Your task to perform on an android device: turn off location history Image 0: 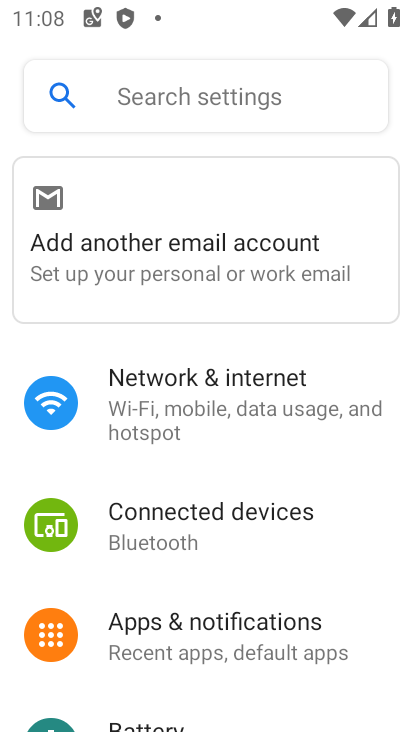
Step 0: press home button
Your task to perform on an android device: turn off location history Image 1: 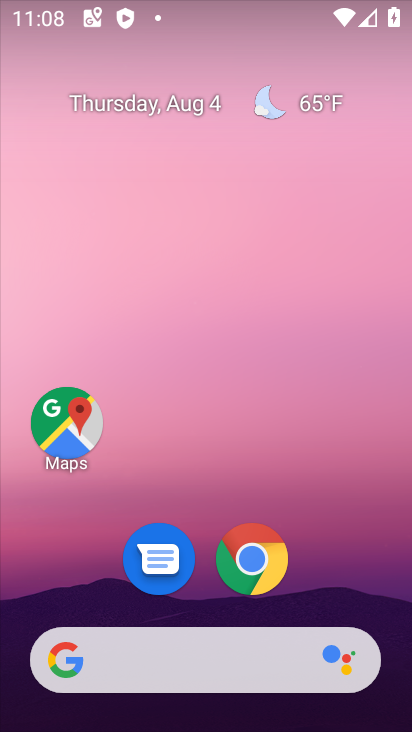
Step 1: drag from (398, 620) to (409, 235)
Your task to perform on an android device: turn off location history Image 2: 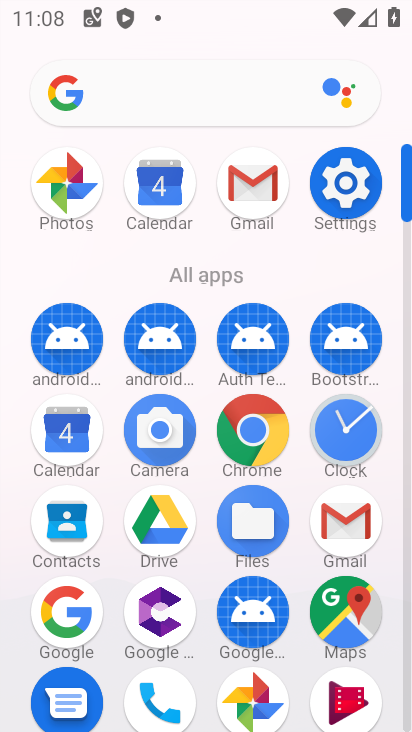
Step 2: click (354, 205)
Your task to perform on an android device: turn off location history Image 3: 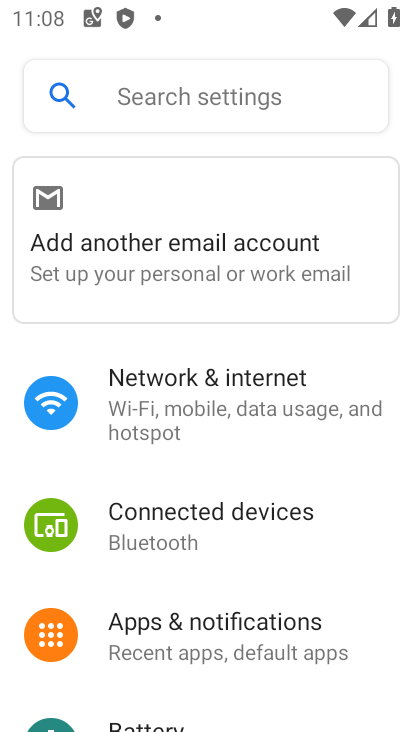
Step 3: drag from (337, 565) to (302, 337)
Your task to perform on an android device: turn off location history Image 4: 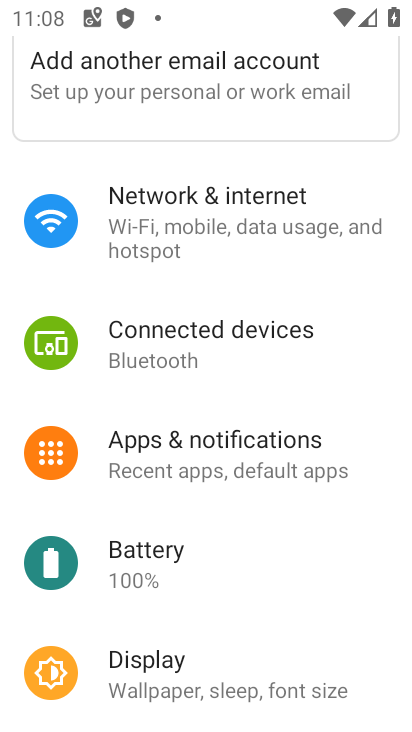
Step 4: drag from (336, 568) to (281, 198)
Your task to perform on an android device: turn off location history Image 5: 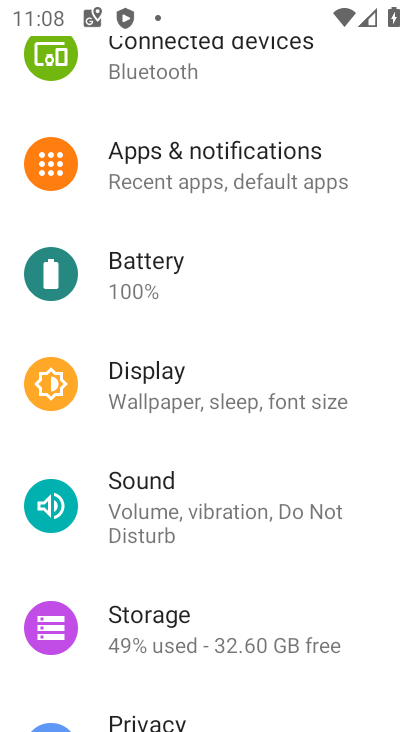
Step 5: drag from (314, 544) to (289, 137)
Your task to perform on an android device: turn off location history Image 6: 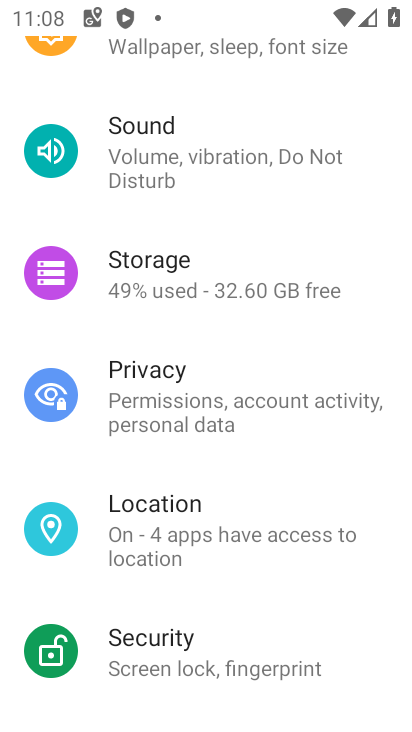
Step 6: click (310, 521)
Your task to perform on an android device: turn off location history Image 7: 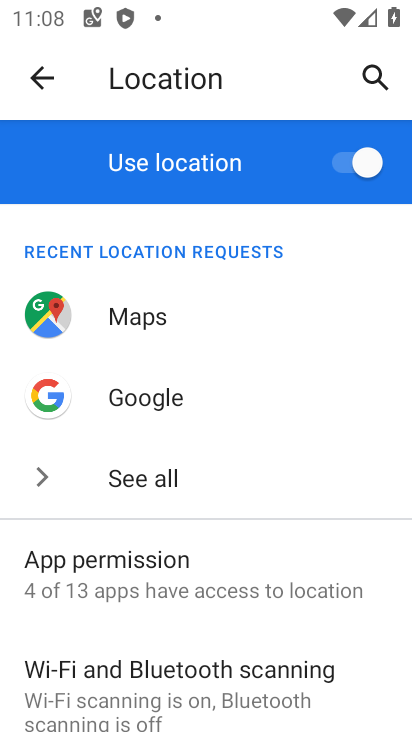
Step 7: drag from (312, 629) to (268, 390)
Your task to perform on an android device: turn off location history Image 8: 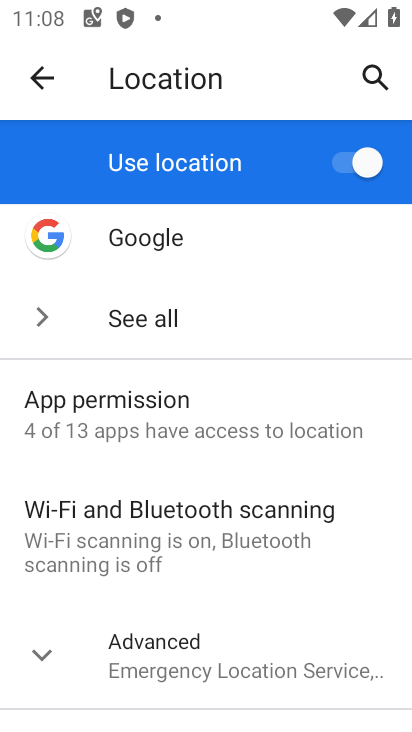
Step 8: click (310, 646)
Your task to perform on an android device: turn off location history Image 9: 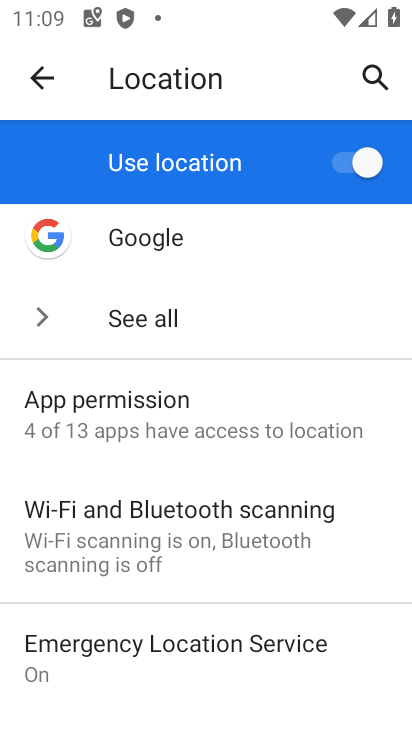
Step 9: drag from (265, 634) to (226, 427)
Your task to perform on an android device: turn off location history Image 10: 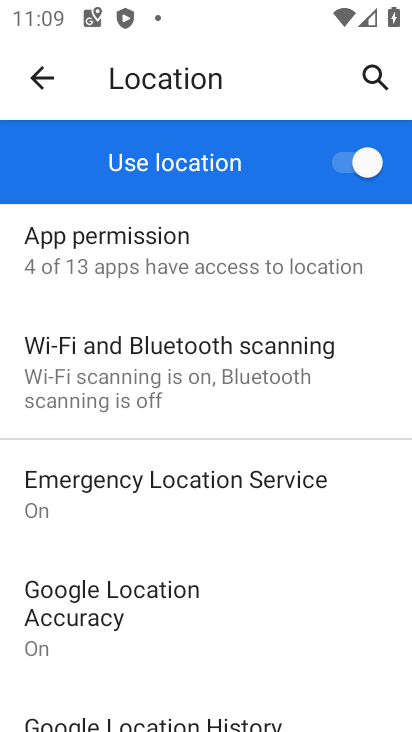
Step 10: click (199, 721)
Your task to perform on an android device: turn off location history Image 11: 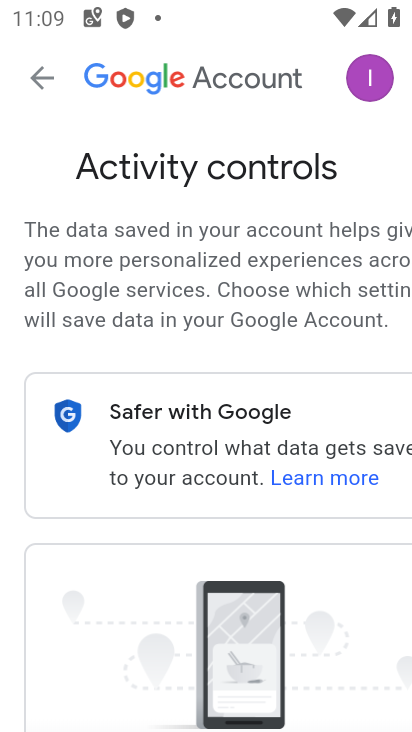
Step 11: task complete